Your task to perform on an android device: What's on my calendar today? Image 0: 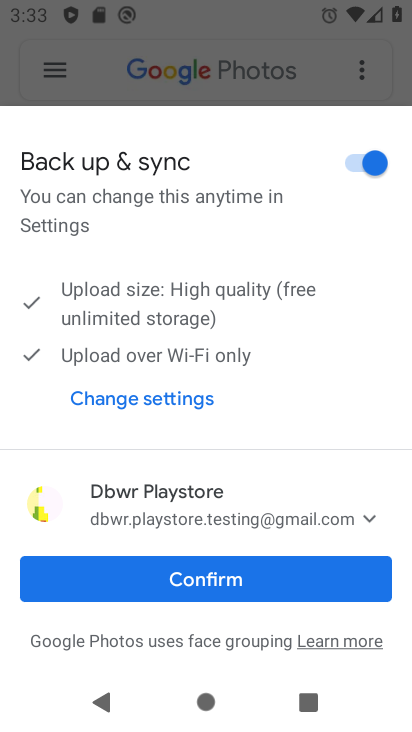
Step 0: press home button
Your task to perform on an android device: What's on my calendar today? Image 1: 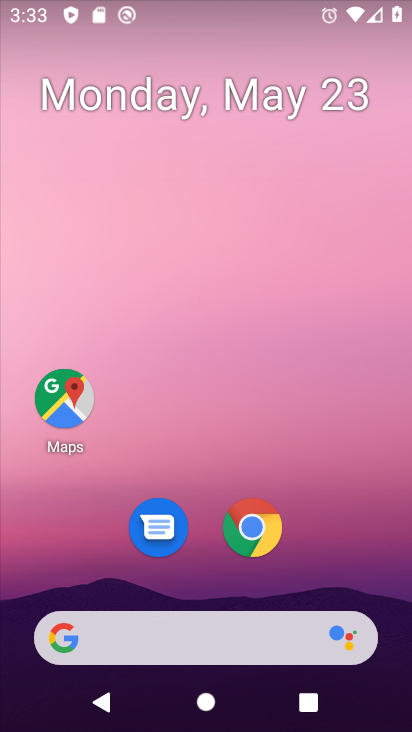
Step 1: drag from (267, 560) to (257, 118)
Your task to perform on an android device: What's on my calendar today? Image 2: 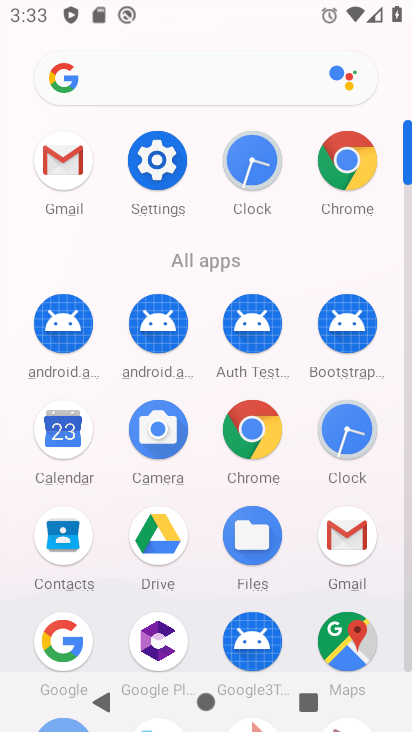
Step 2: click (76, 452)
Your task to perform on an android device: What's on my calendar today? Image 3: 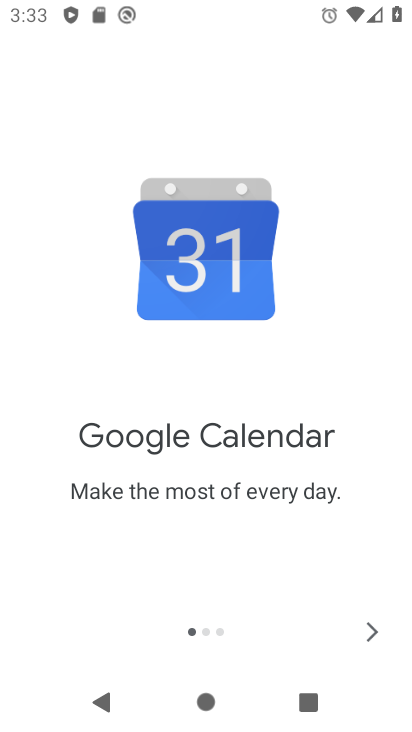
Step 3: click (370, 615)
Your task to perform on an android device: What's on my calendar today? Image 4: 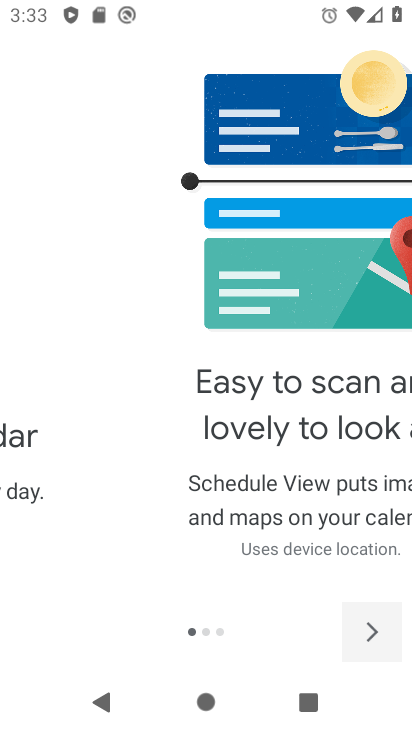
Step 4: click (370, 615)
Your task to perform on an android device: What's on my calendar today? Image 5: 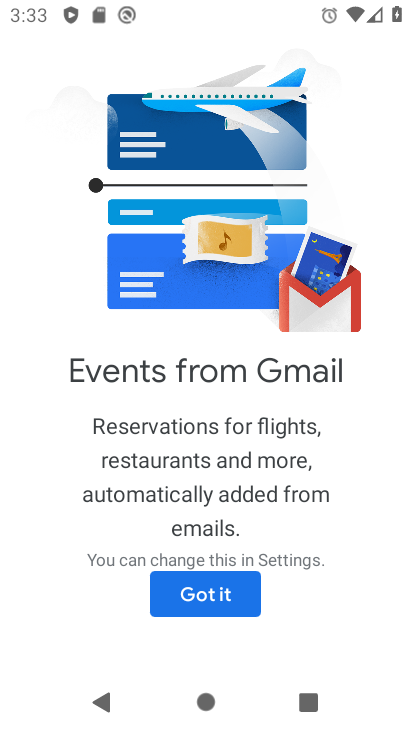
Step 5: click (248, 605)
Your task to perform on an android device: What's on my calendar today? Image 6: 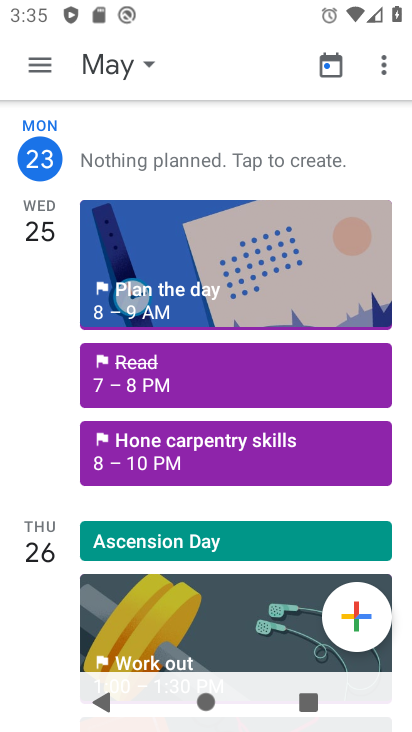
Step 6: task complete